Your task to perform on an android device: Is it going to rain today? Image 0: 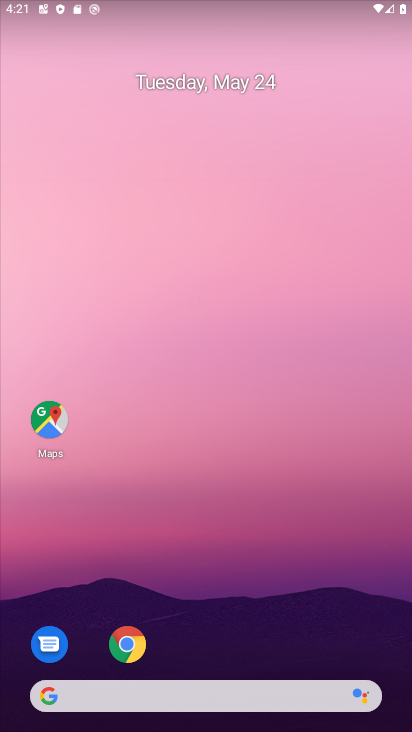
Step 0: drag from (201, 674) to (126, 212)
Your task to perform on an android device: Is it going to rain today? Image 1: 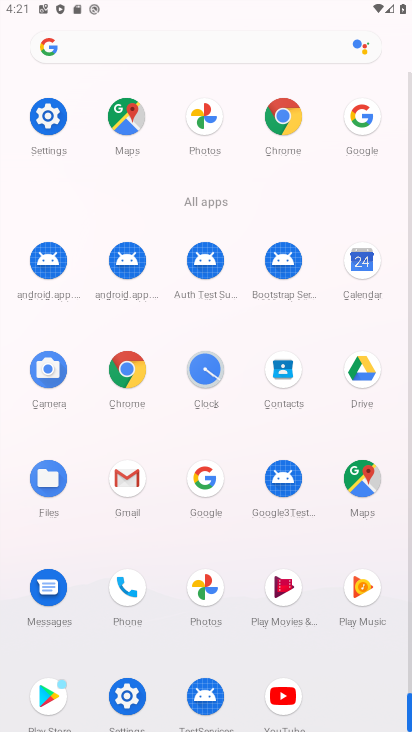
Step 1: press back button
Your task to perform on an android device: Is it going to rain today? Image 2: 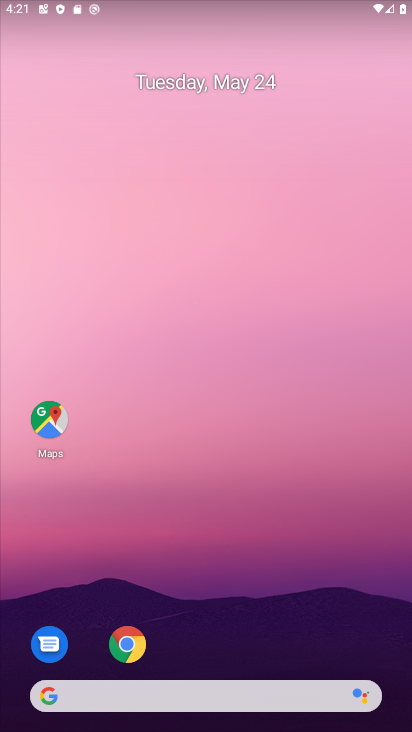
Step 2: drag from (0, 312) to (408, 303)
Your task to perform on an android device: Is it going to rain today? Image 3: 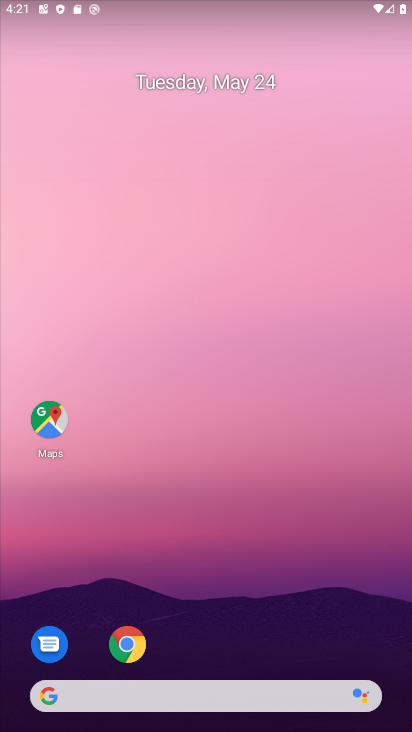
Step 3: drag from (3, 228) to (369, 347)
Your task to perform on an android device: Is it going to rain today? Image 4: 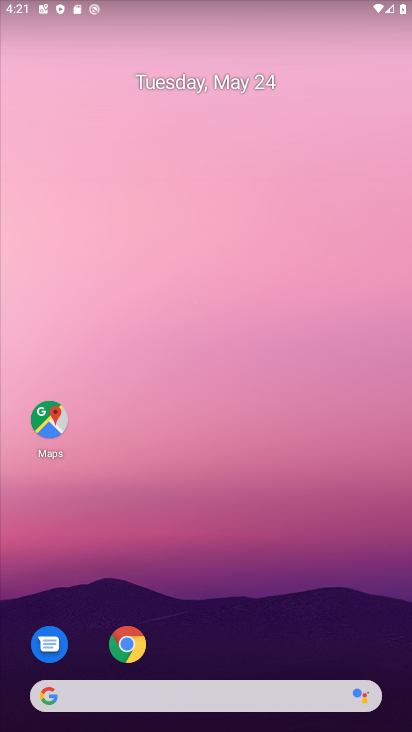
Step 4: drag from (263, 372) to (391, 360)
Your task to perform on an android device: Is it going to rain today? Image 5: 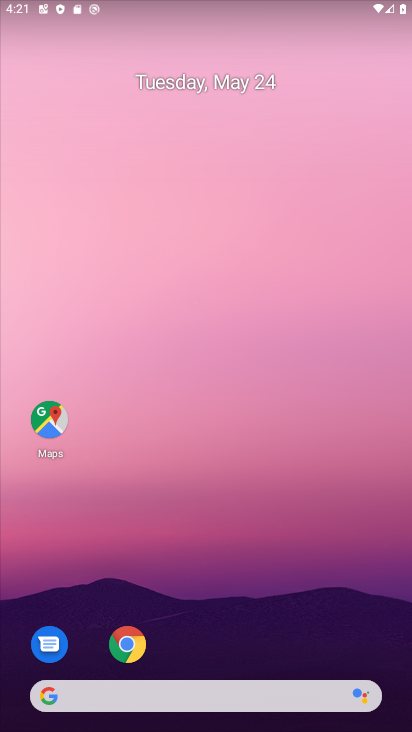
Step 5: drag from (0, 269) to (274, 415)
Your task to perform on an android device: Is it going to rain today? Image 6: 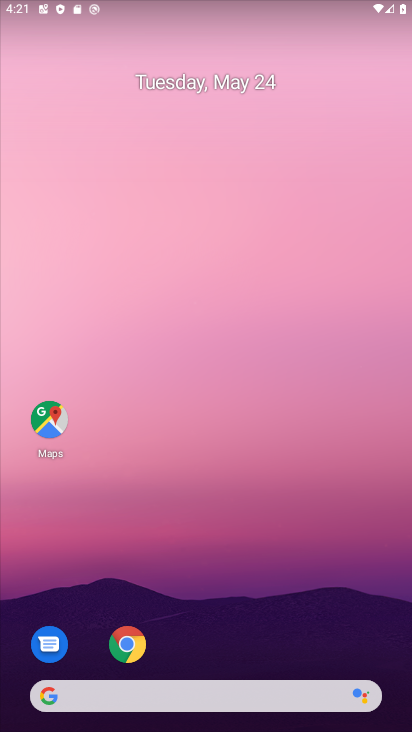
Step 6: drag from (297, 386) to (380, 413)
Your task to perform on an android device: Is it going to rain today? Image 7: 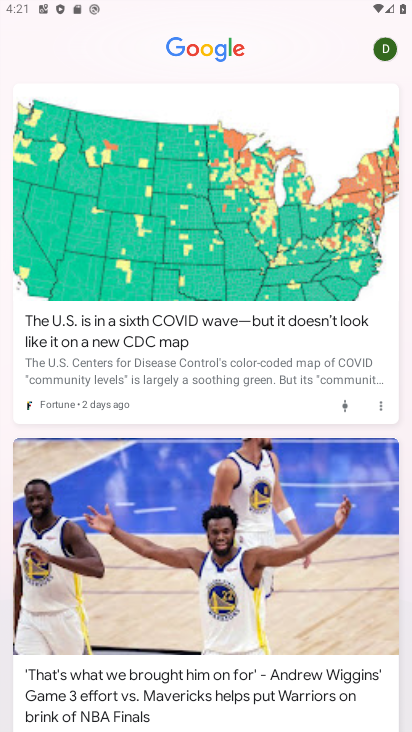
Step 7: drag from (39, 276) to (403, 390)
Your task to perform on an android device: Is it going to rain today? Image 8: 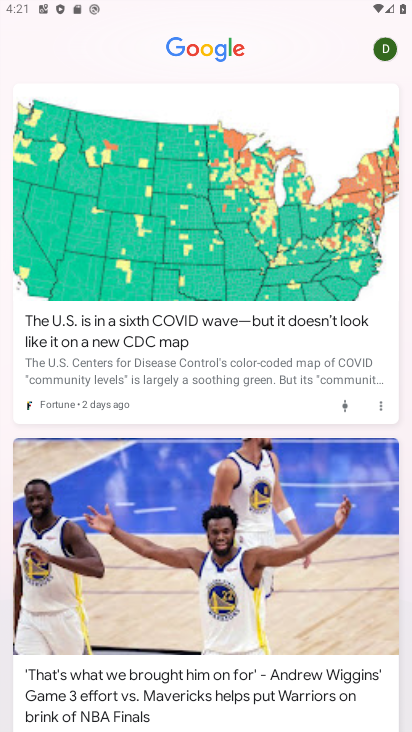
Step 8: press back button
Your task to perform on an android device: Is it going to rain today? Image 9: 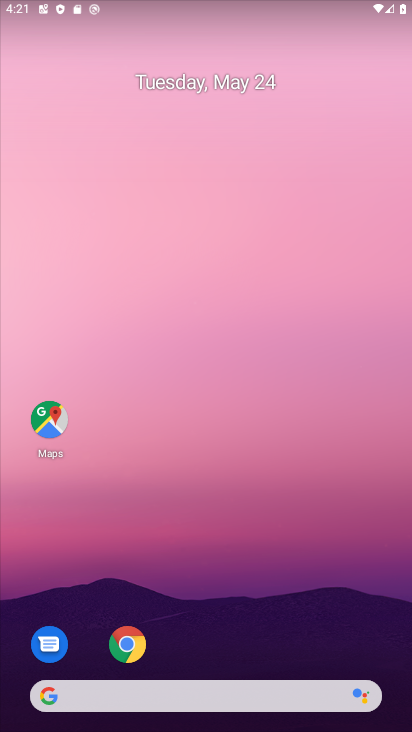
Step 9: drag from (3, 194) to (322, 361)
Your task to perform on an android device: Is it going to rain today? Image 10: 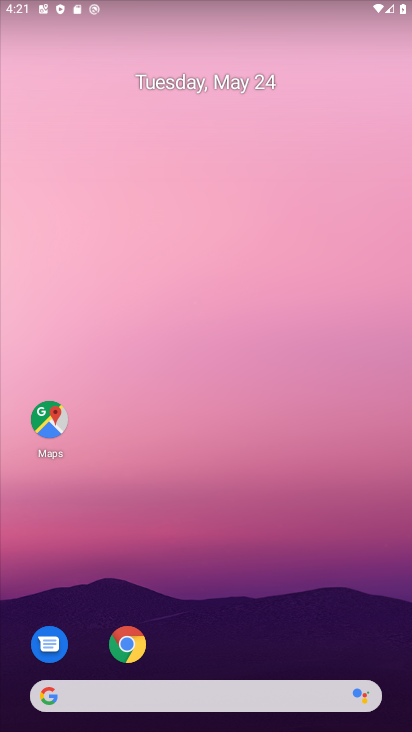
Step 10: drag from (0, 223) to (407, 380)
Your task to perform on an android device: Is it going to rain today? Image 11: 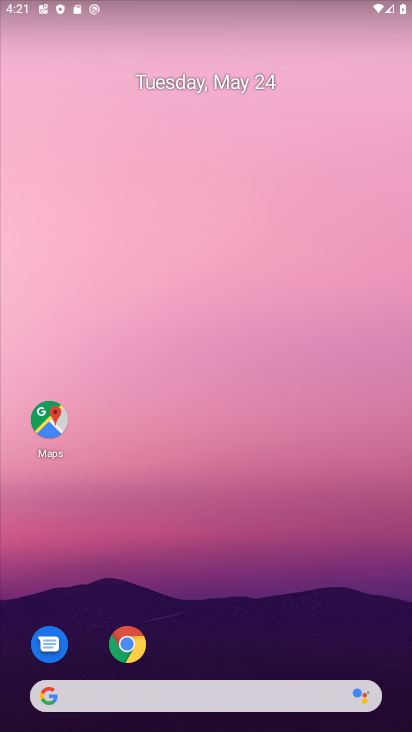
Step 11: drag from (49, 288) to (388, 405)
Your task to perform on an android device: Is it going to rain today? Image 12: 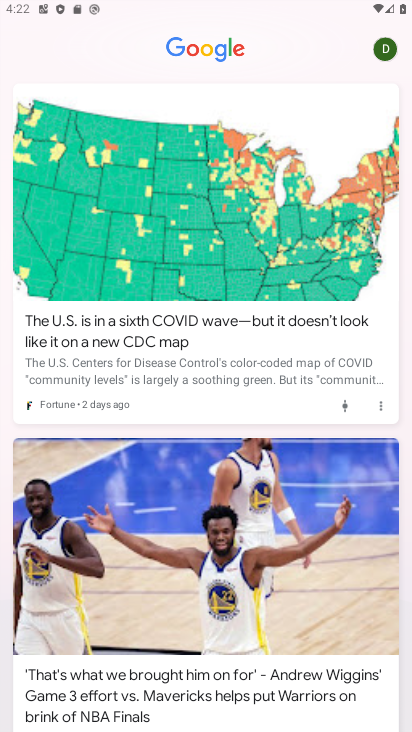
Step 12: drag from (211, 173) to (143, 645)
Your task to perform on an android device: Is it going to rain today? Image 13: 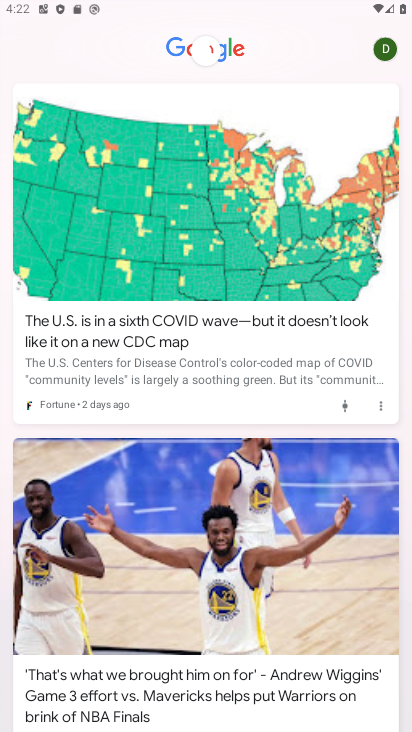
Step 13: click (150, 572)
Your task to perform on an android device: Is it going to rain today? Image 14: 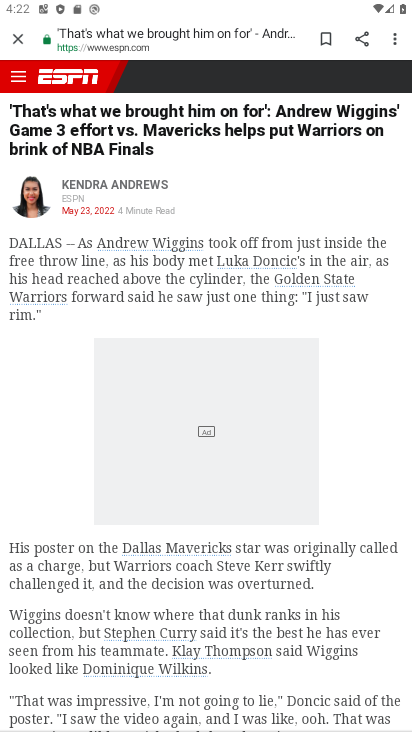
Step 14: task complete